Your task to perform on an android device: install app "Microsoft Excel" Image 0: 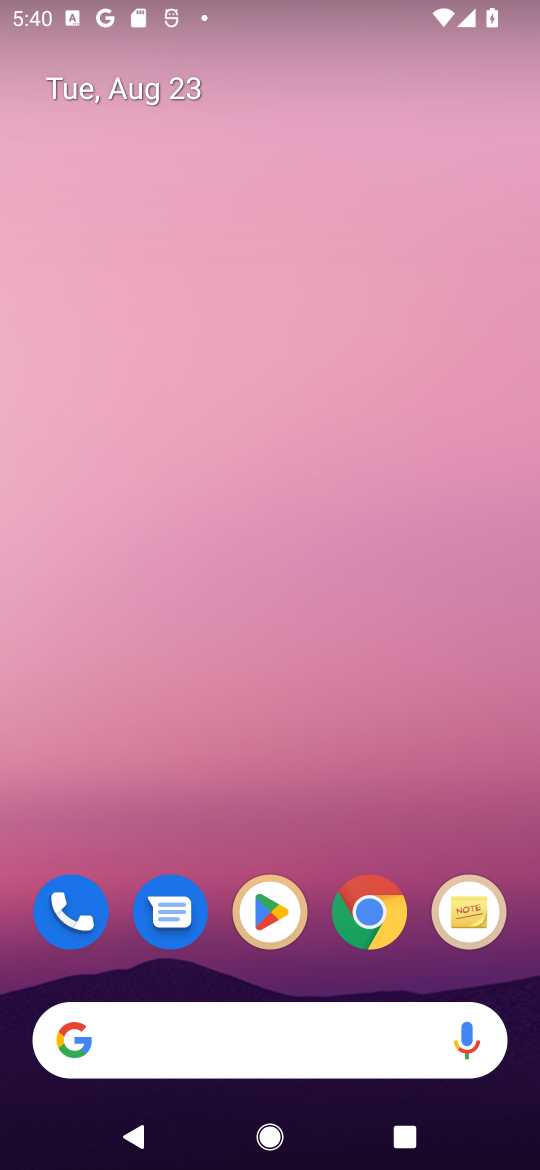
Step 0: click (255, 993)
Your task to perform on an android device: install app "Microsoft Excel" Image 1: 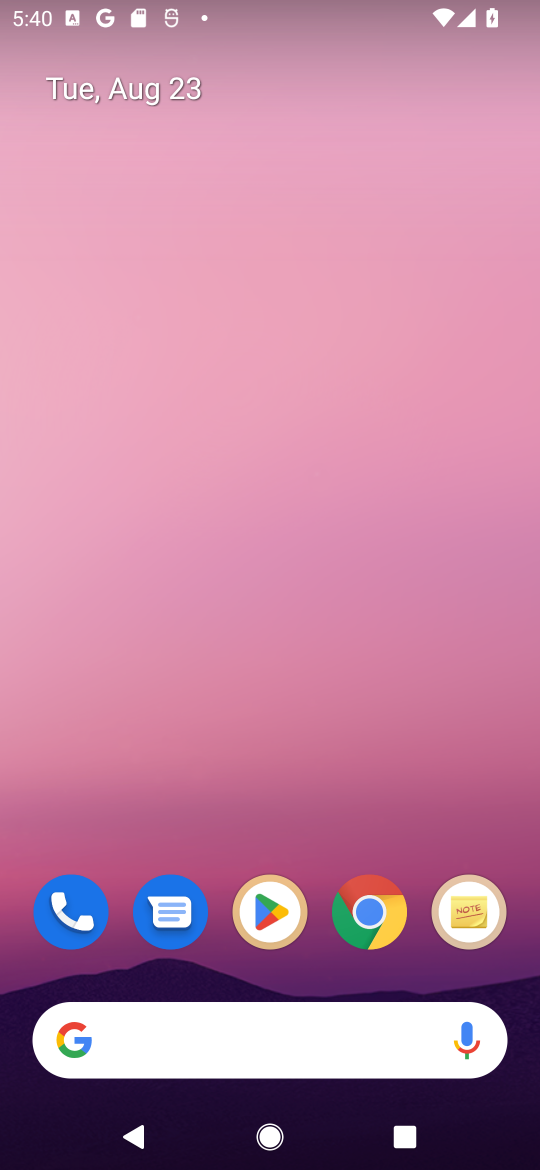
Step 1: click (206, 920)
Your task to perform on an android device: install app "Microsoft Excel" Image 2: 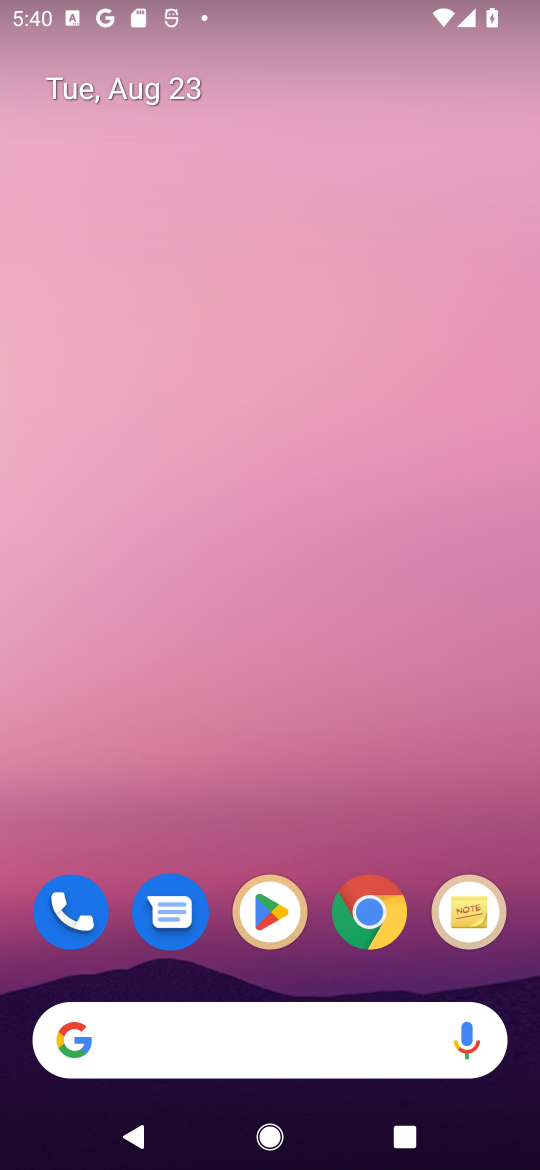
Step 2: click (255, 914)
Your task to perform on an android device: install app "Microsoft Excel" Image 3: 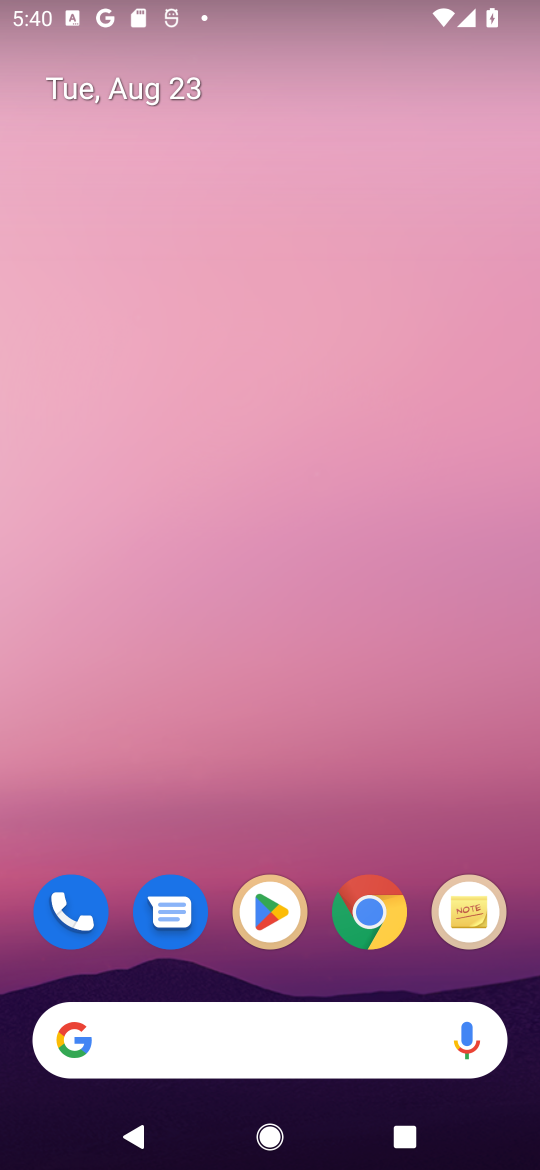
Step 3: click (262, 914)
Your task to perform on an android device: install app "Microsoft Excel" Image 4: 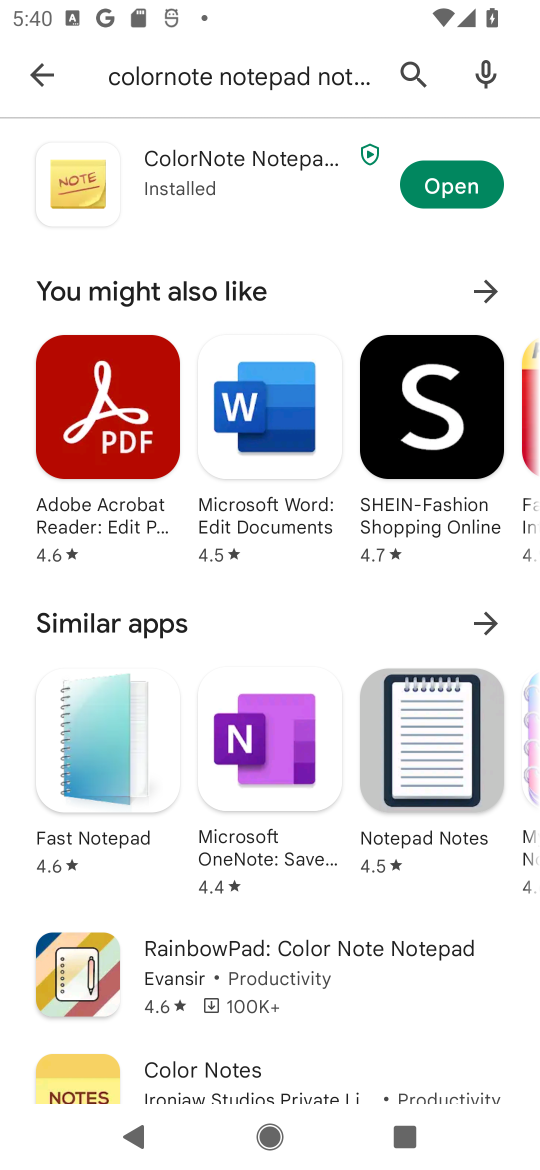
Step 4: click (54, 60)
Your task to perform on an android device: install app "Microsoft Excel" Image 5: 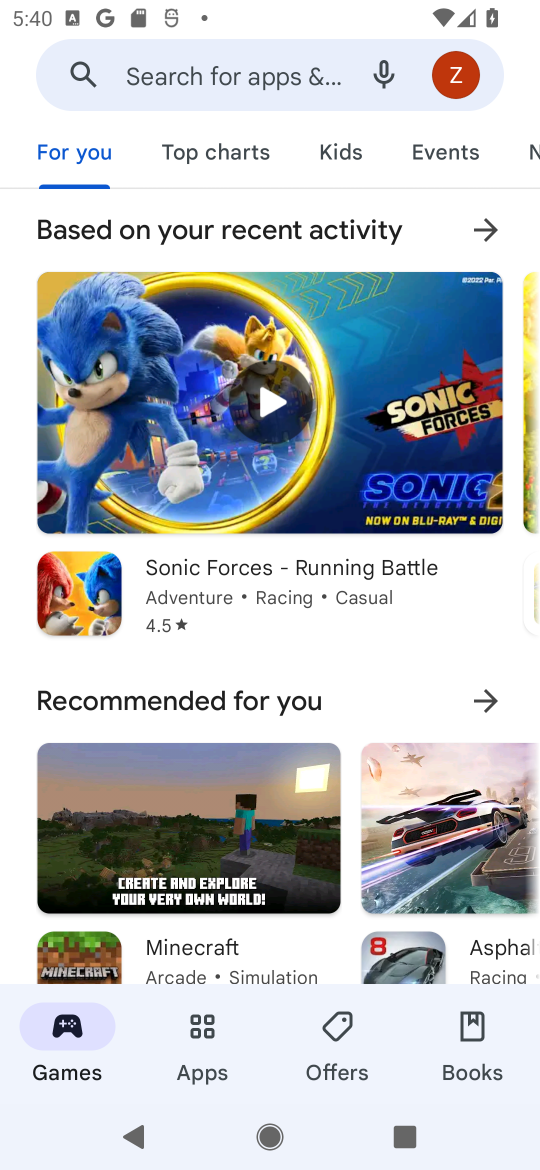
Step 5: click (226, 67)
Your task to perform on an android device: install app "Microsoft Excel" Image 6: 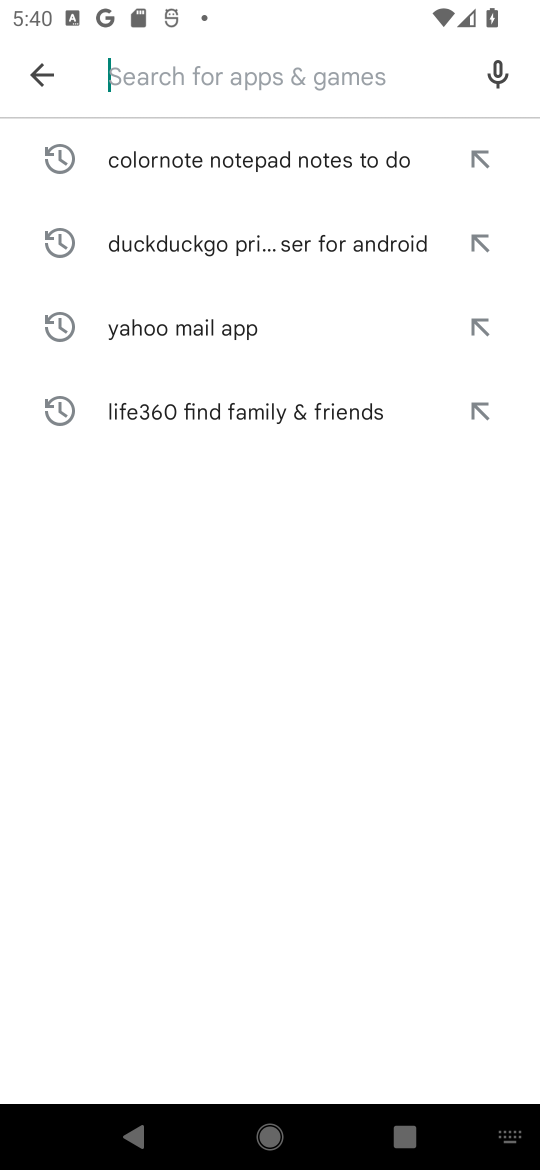
Step 6: type "Microsoft Excel "
Your task to perform on an android device: install app "Microsoft Excel" Image 7: 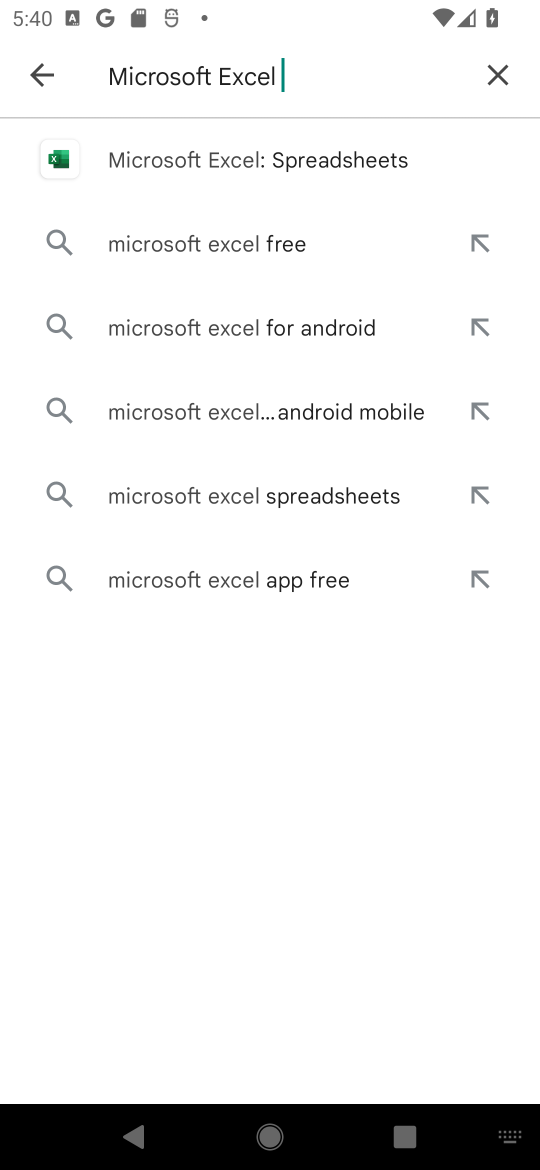
Step 7: click (338, 151)
Your task to perform on an android device: install app "Microsoft Excel" Image 8: 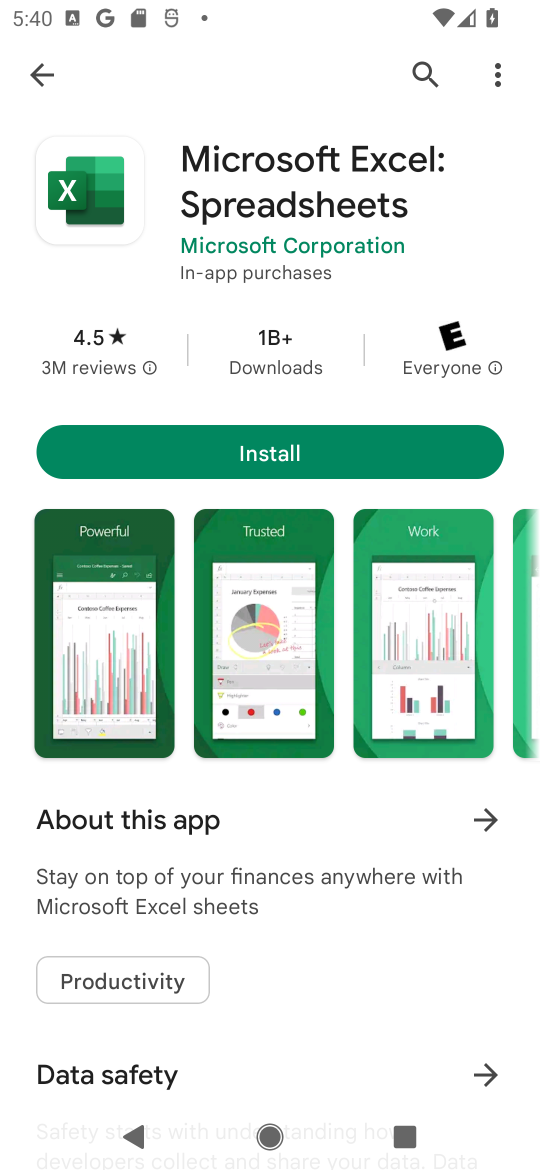
Step 8: click (347, 442)
Your task to perform on an android device: install app "Microsoft Excel" Image 9: 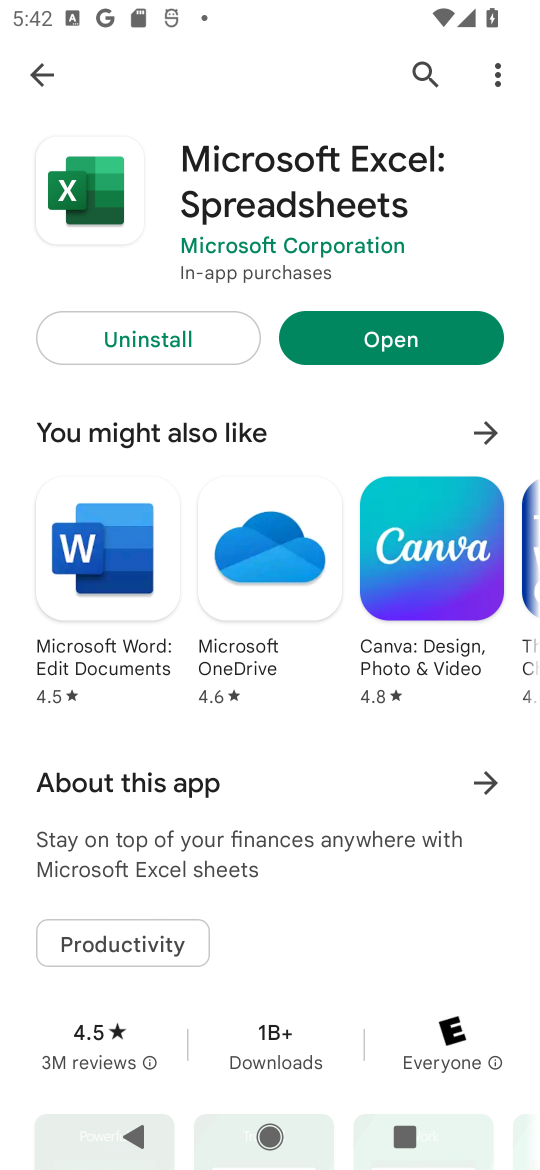
Step 9: click (410, 339)
Your task to perform on an android device: install app "Microsoft Excel" Image 10: 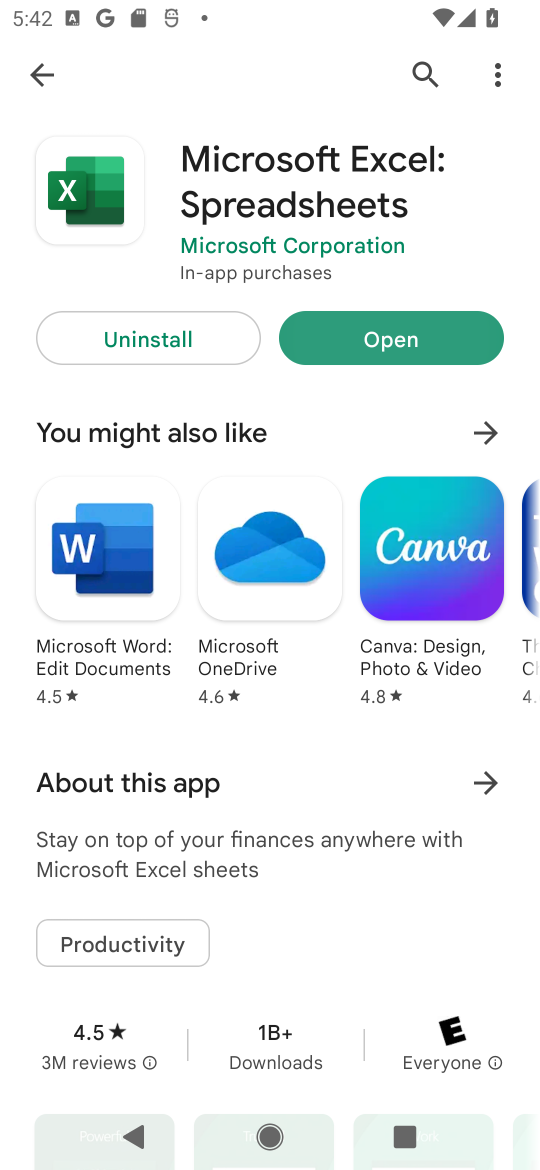
Step 10: task complete